Your task to perform on an android device: Open settings on Google Maps Image 0: 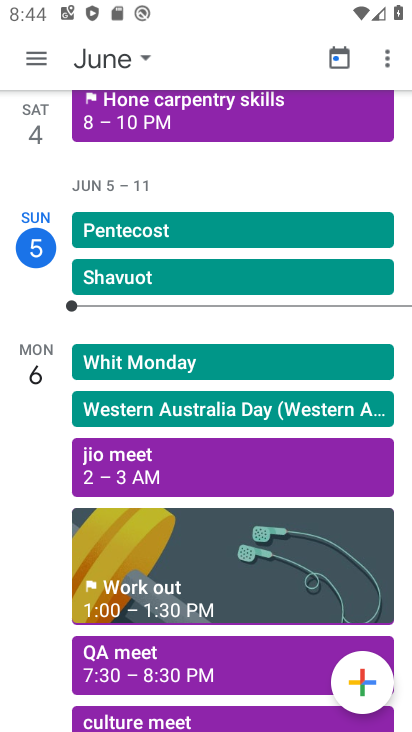
Step 0: press home button
Your task to perform on an android device: Open settings on Google Maps Image 1: 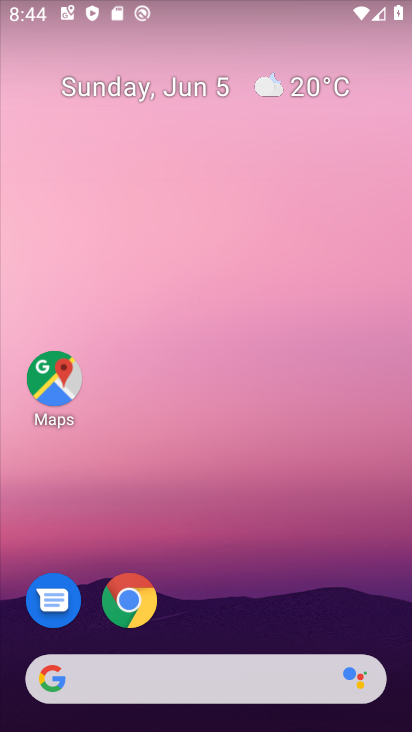
Step 1: click (54, 375)
Your task to perform on an android device: Open settings on Google Maps Image 2: 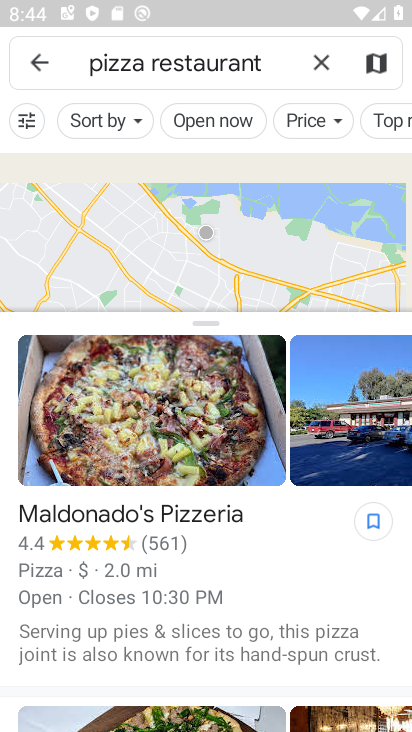
Step 2: click (316, 61)
Your task to perform on an android device: Open settings on Google Maps Image 3: 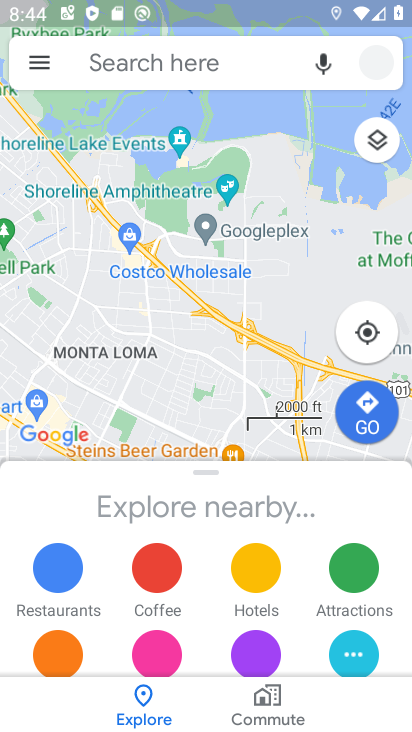
Step 3: click (37, 66)
Your task to perform on an android device: Open settings on Google Maps Image 4: 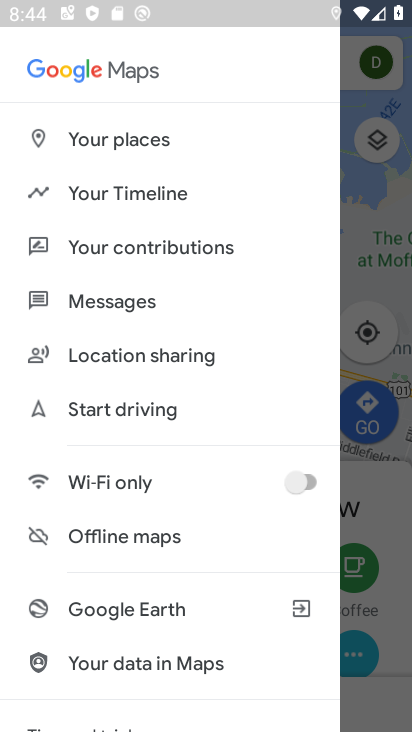
Step 4: drag from (153, 583) to (185, 1)
Your task to perform on an android device: Open settings on Google Maps Image 5: 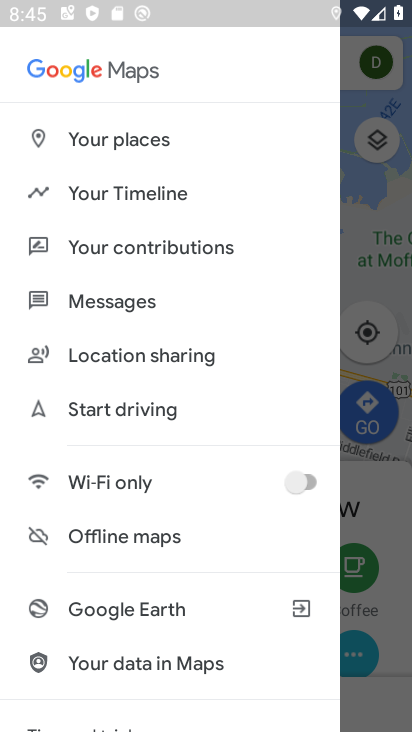
Step 5: drag from (169, 391) to (226, 0)
Your task to perform on an android device: Open settings on Google Maps Image 6: 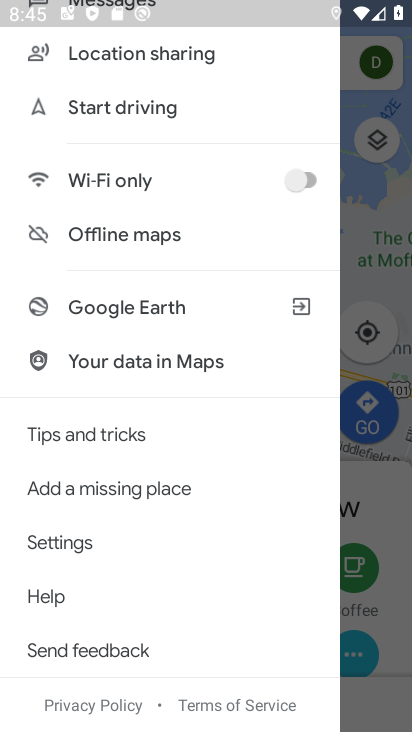
Step 6: click (152, 543)
Your task to perform on an android device: Open settings on Google Maps Image 7: 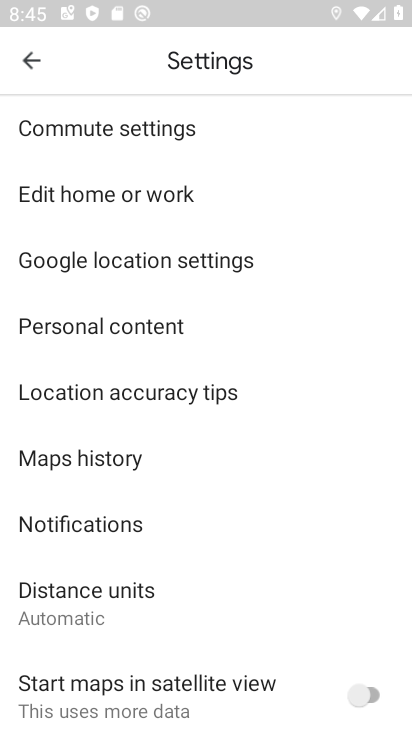
Step 7: task complete